Your task to perform on an android device: toggle priority inbox in the gmail app Image 0: 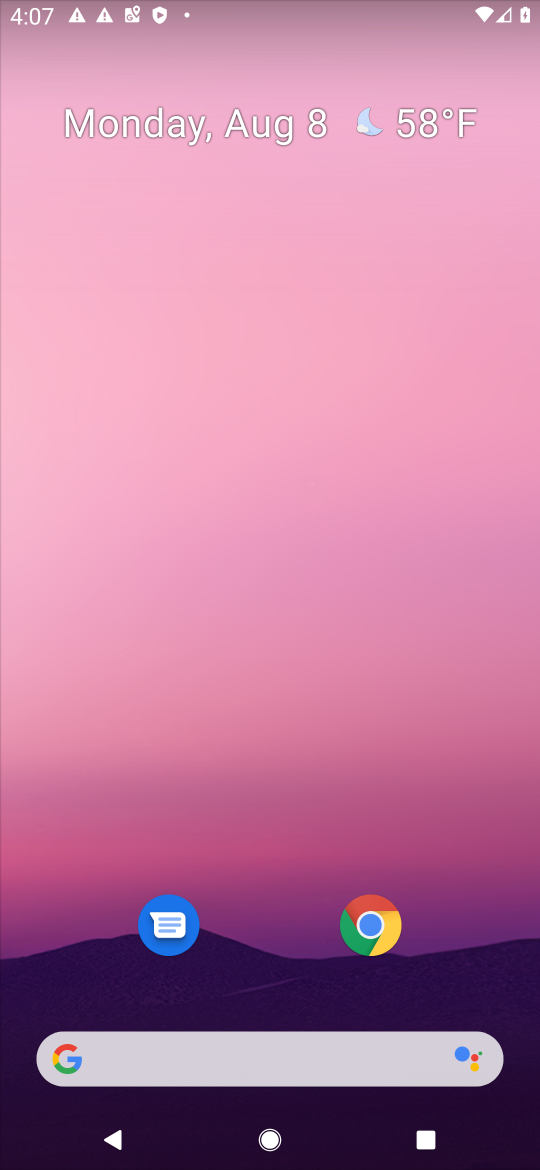
Step 0: drag from (274, 973) to (270, 26)
Your task to perform on an android device: toggle priority inbox in the gmail app Image 1: 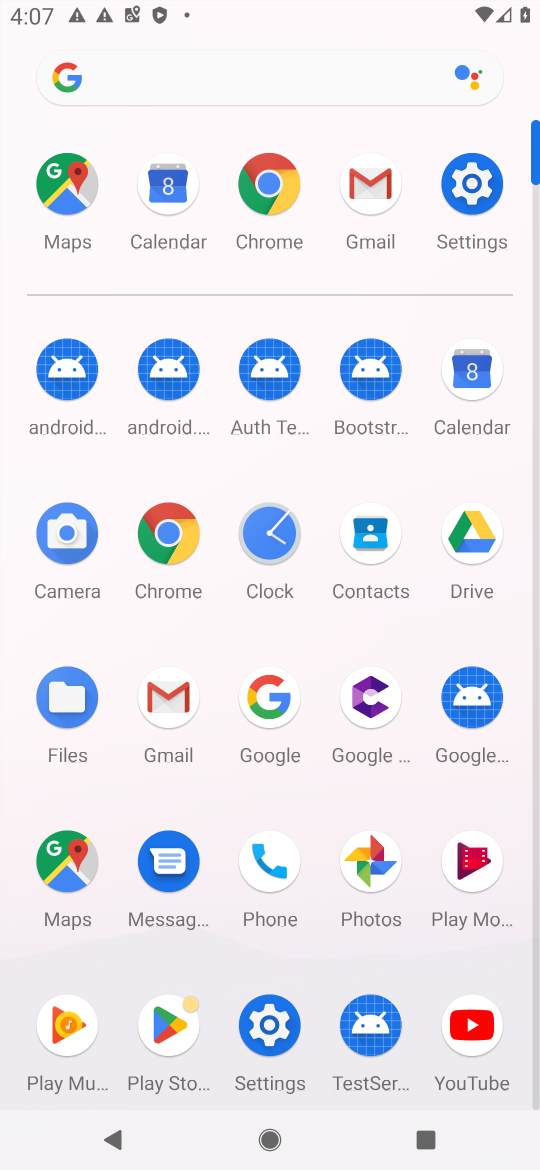
Step 1: click (372, 188)
Your task to perform on an android device: toggle priority inbox in the gmail app Image 2: 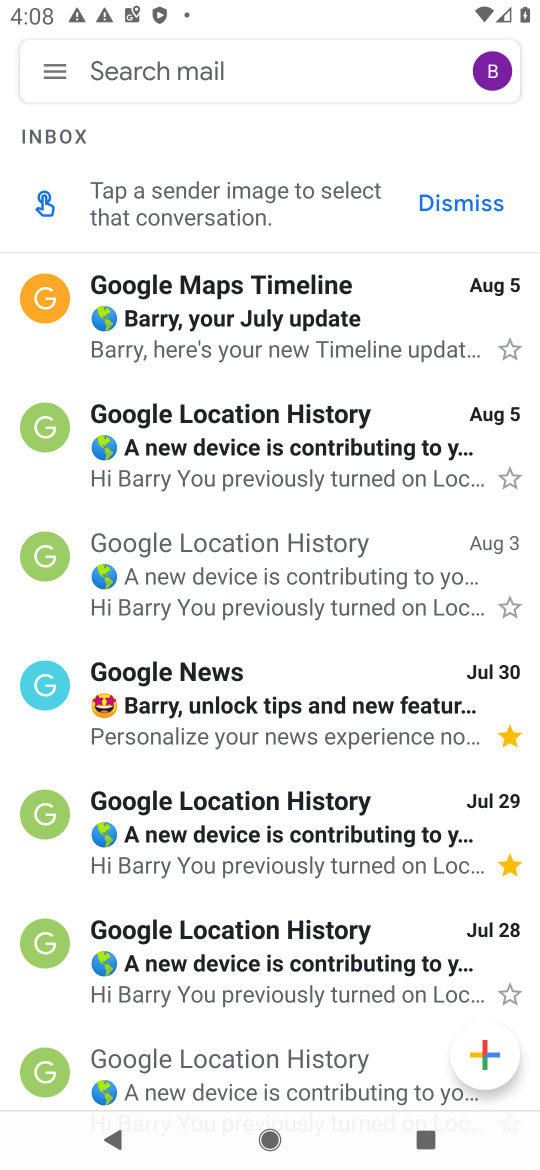
Step 2: click (68, 67)
Your task to perform on an android device: toggle priority inbox in the gmail app Image 3: 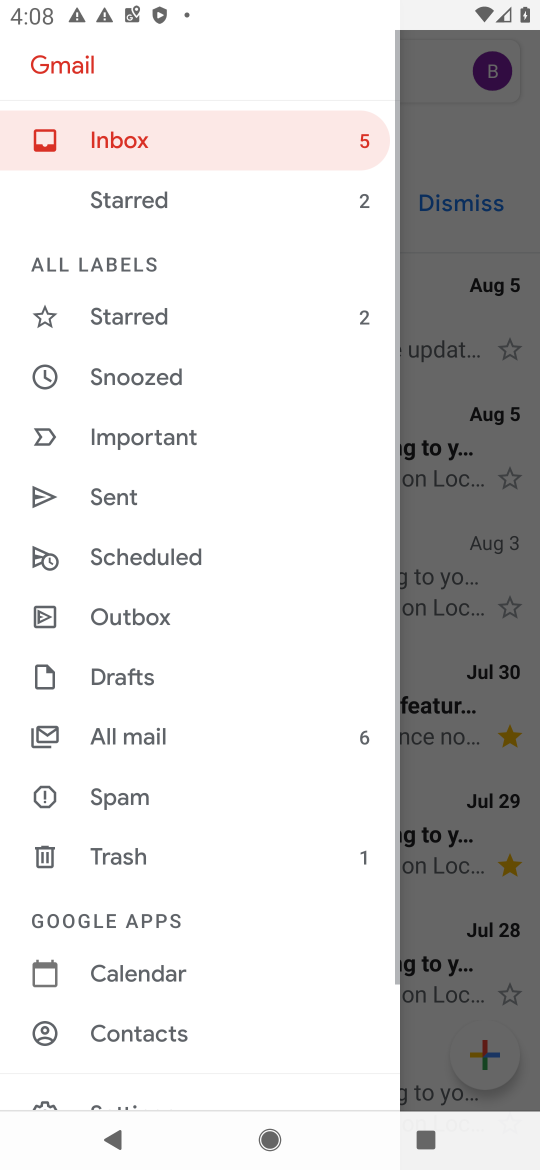
Step 3: drag from (144, 983) to (101, 571)
Your task to perform on an android device: toggle priority inbox in the gmail app Image 4: 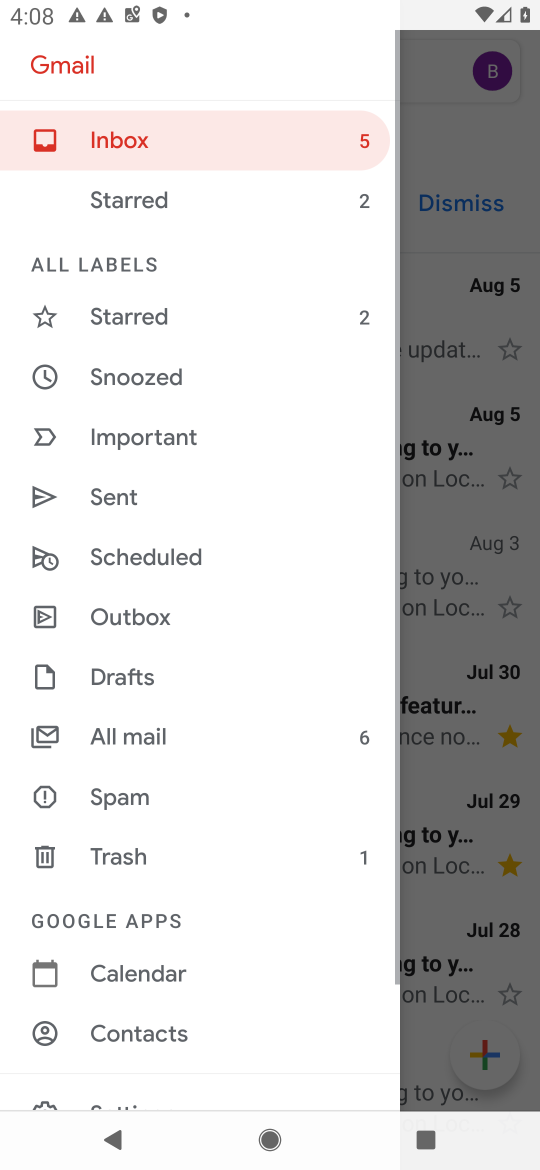
Step 4: drag from (119, 1041) to (118, 636)
Your task to perform on an android device: toggle priority inbox in the gmail app Image 5: 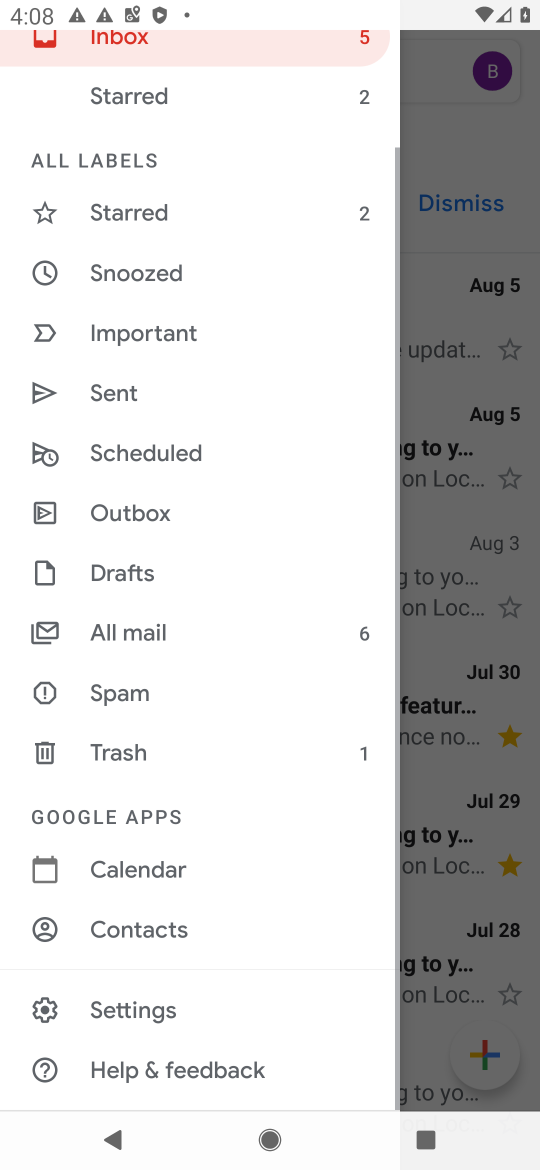
Step 5: click (156, 1011)
Your task to perform on an android device: toggle priority inbox in the gmail app Image 6: 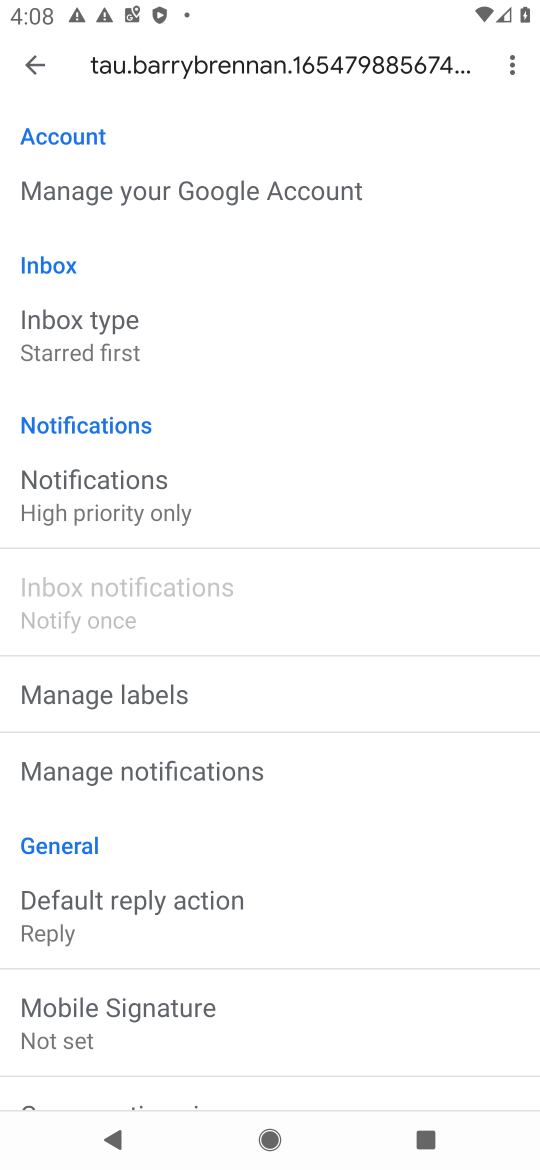
Step 6: click (107, 350)
Your task to perform on an android device: toggle priority inbox in the gmail app Image 7: 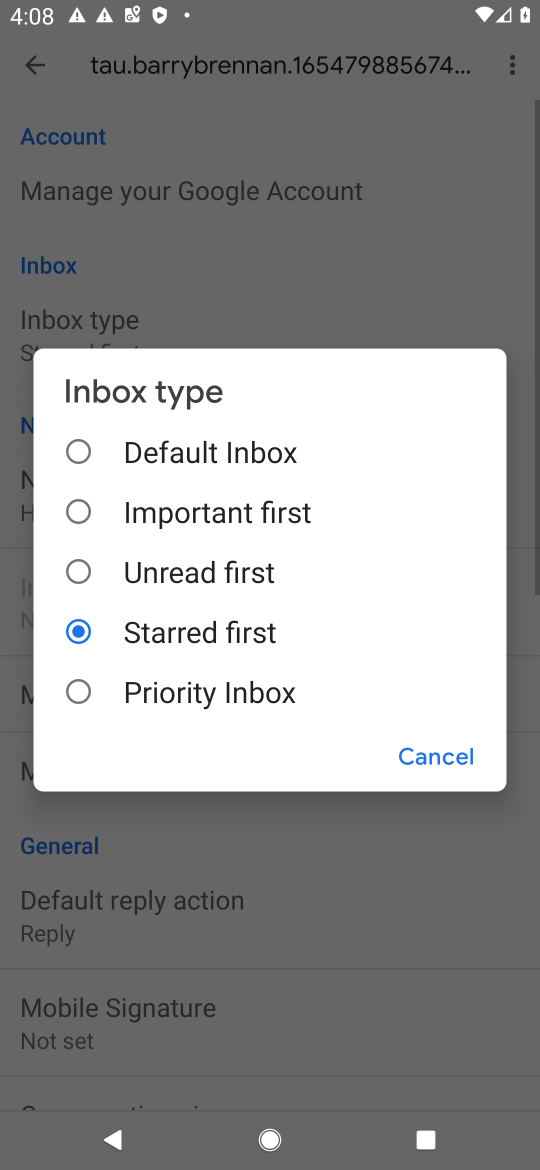
Step 7: click (79, 682)
Your task to perform on an android device: toggle priority inbox in the gmail app Image 8: 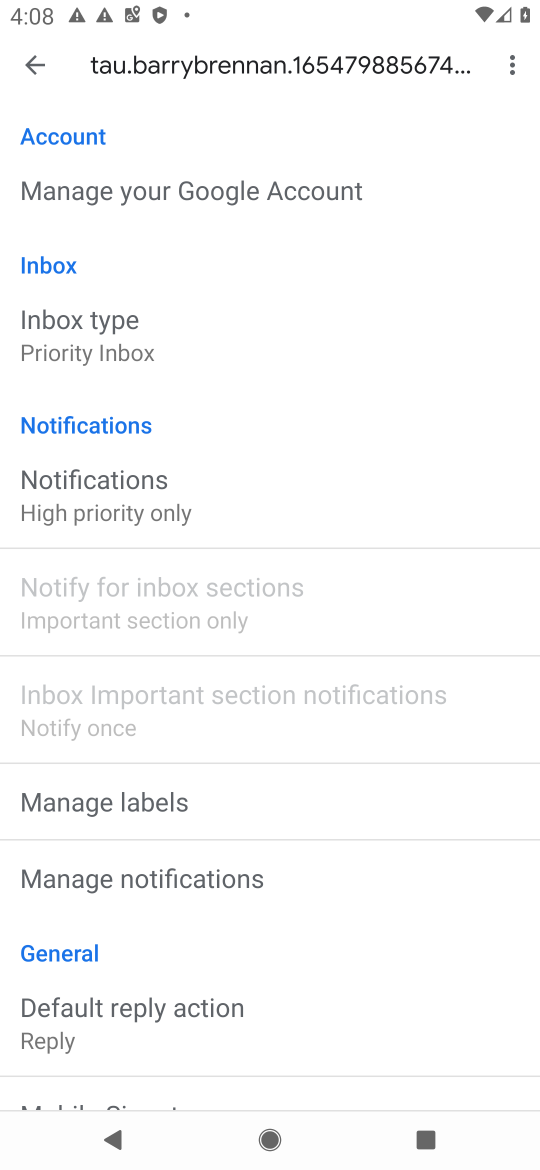
Step 8: task complete